Your task to perform on an android device: turn vacation reply on in the gmail app Image 0: 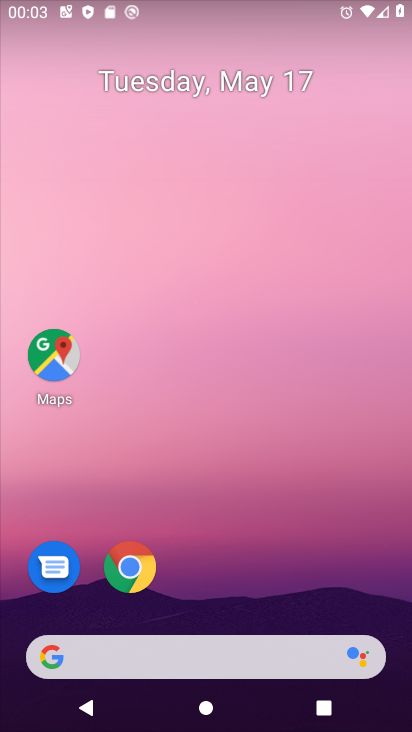
Step 0: drag from (290, 505) to (203, 43)
Your task to perform on an android device: turn vacation reply on in the gmail app Image 1: 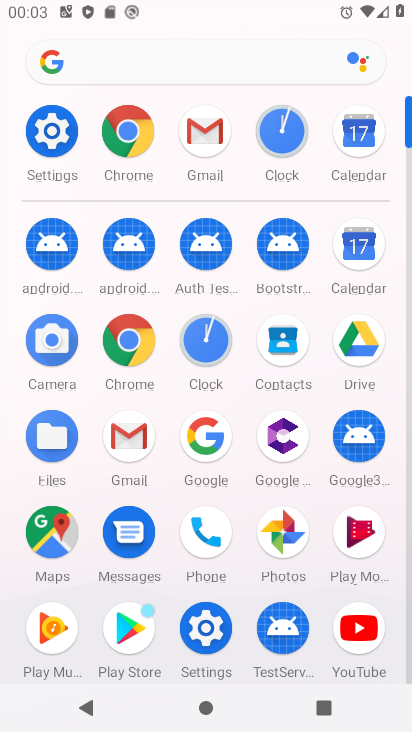
Step 1: click (209, 132)
Your task to perform on an android device: turn vacation reply on in the gmail app Image 2: 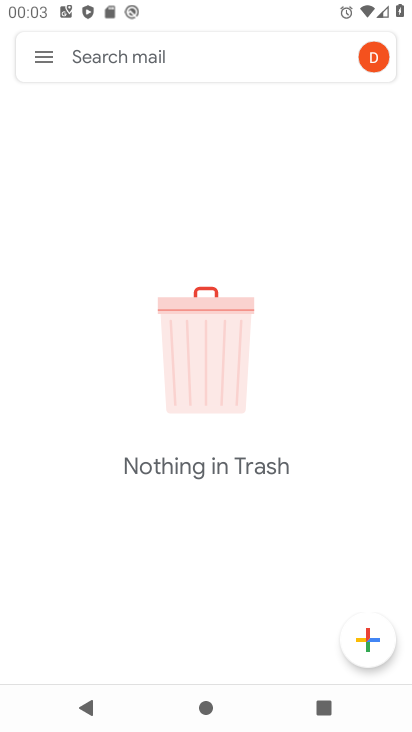
Step 2: click (42, 58)
Your task to perform on an android device: turn vacation reply on in the gmail app Image 3: 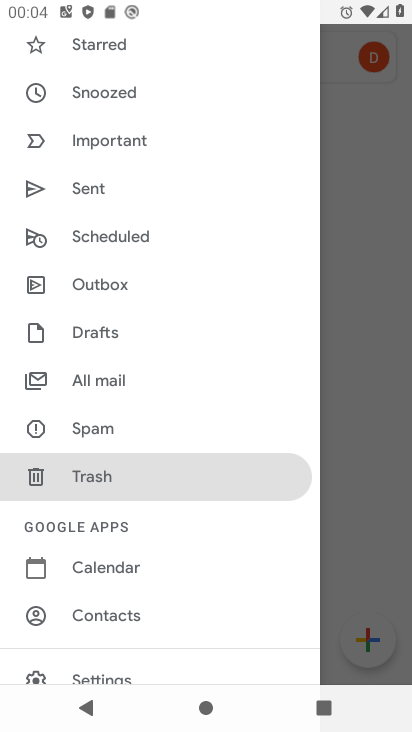
Step 3: click (101, 672)
Your task to perform on an android device: turn vacation reply on in the gmail app Image 4: 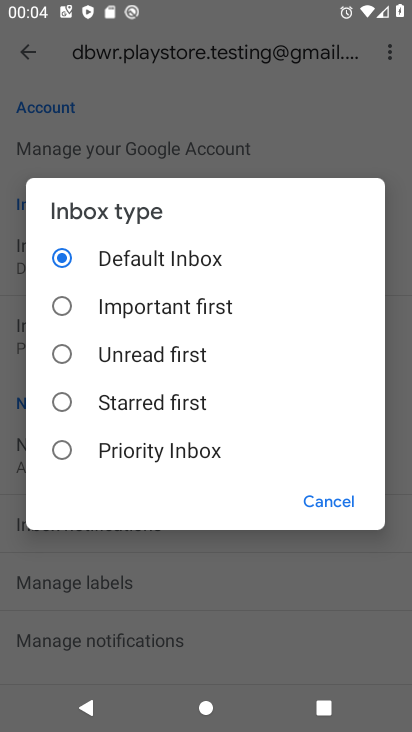
Step 4: click (319, 507)
Your task to perform on an android device: turn vacation reply on in the gmail app Image 5: 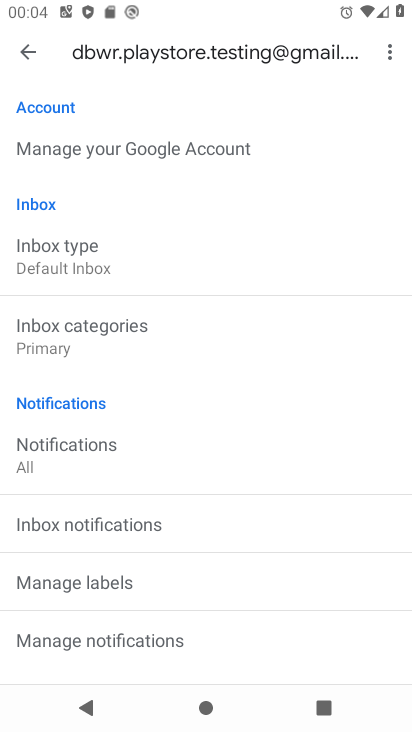
Step 5: drag from (248, 486) to (203, 189)
Your task to perform on an android device: turn vacation reply on in the gmail app Image 6: 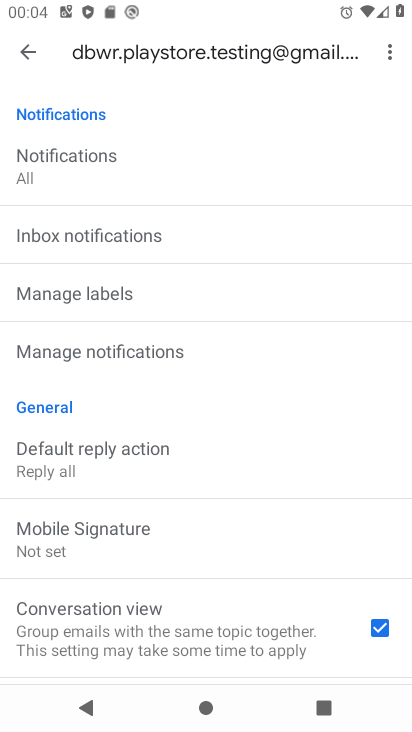
Step 6: drag from (198, 531) to (187, 221)
Your task to perform on an android device: turn vacation reply on in the gmail app Image 7: 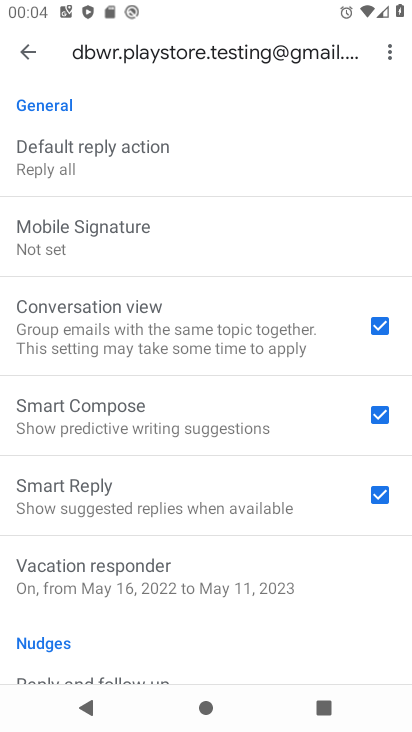
Step 7: click (128, 575)
Your task to perform on an android device: turn vacation reply on in the gmail app Image 8: 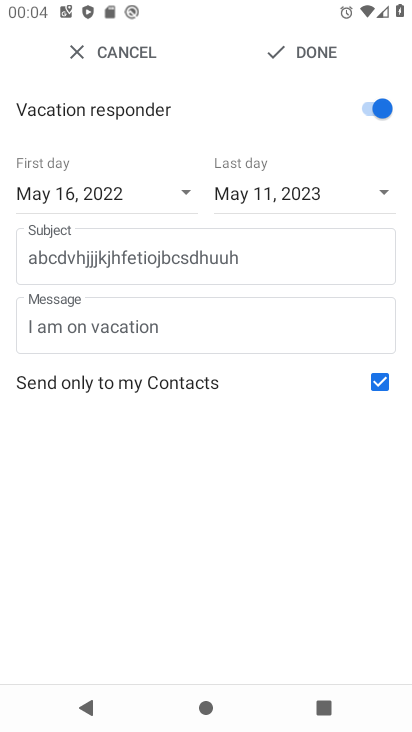
Step 8: task complete